Your task to perform on an android device: toggle data saver in the chrome app Image 0: 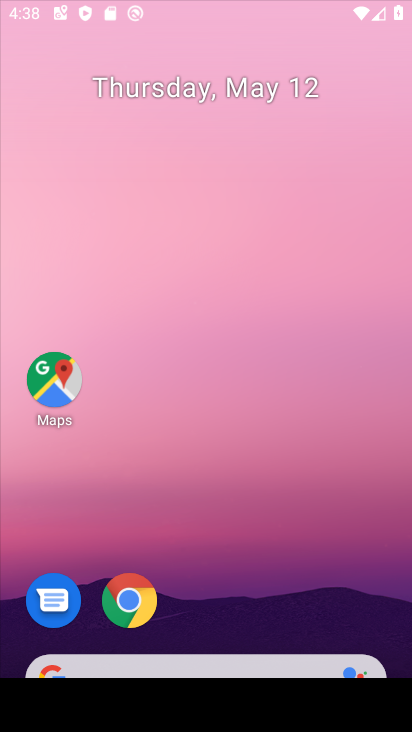
Step 0: drag from (207, 501) to (286, 179)
Your task to perform on an android device: toggle data saver in the chrome app Image 1: 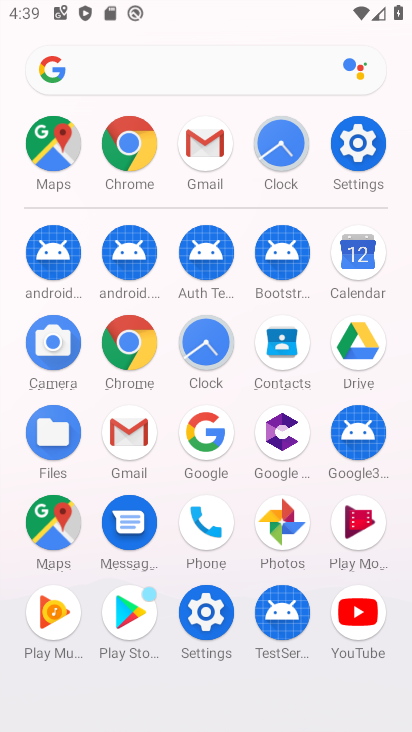
Step 1: click (124, 346)
Your task to perform on an android device: toggle data saver in the chrome app Image 2: 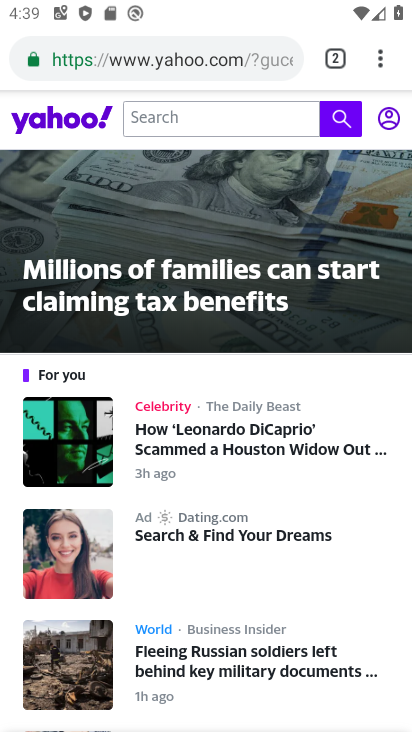
Step 2: click (379, 48)
Your task to perform on an android device: toggle data saver in the chrome app Image 3: 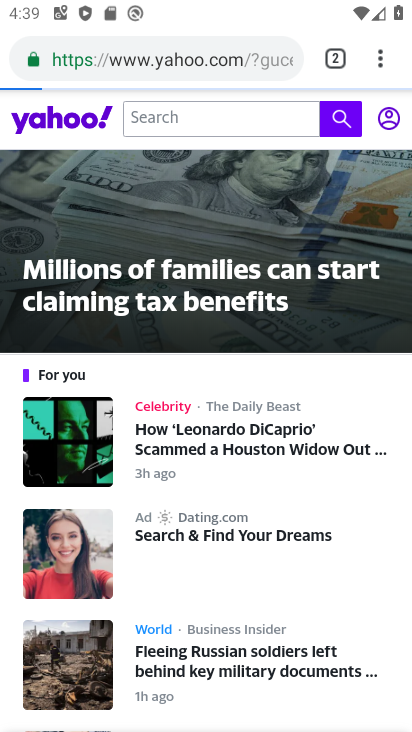
Step 3: drag from (375, 51) to (226, 622)
Your task to perform on an android device: toggle data saver in the chrome app Image 4: 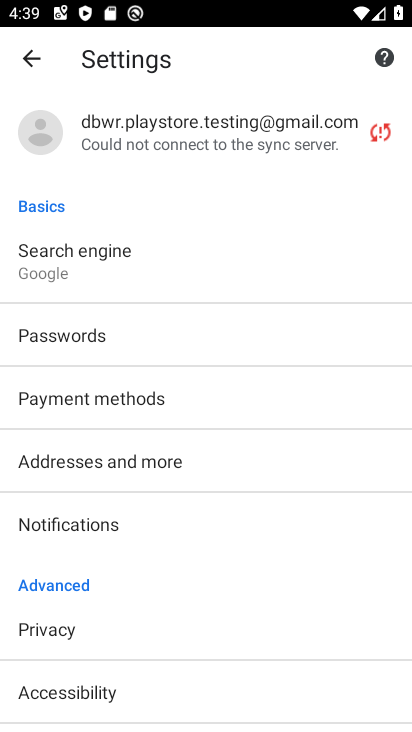
Step 4: drag from (218, 637) to (286, 133)
Your task to perform on an android device: toggle data saver in the chrome app Image 5: 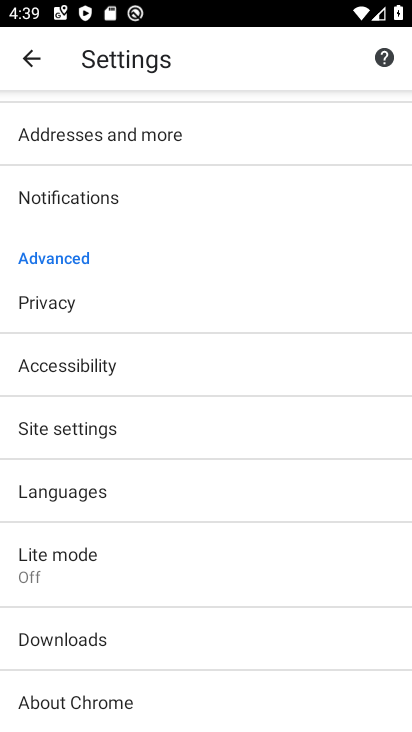
Step 5: drag from (150, 654) to (253, 179)
Your task to perform on an android device: toggle data saver in the chrome app Image 6: 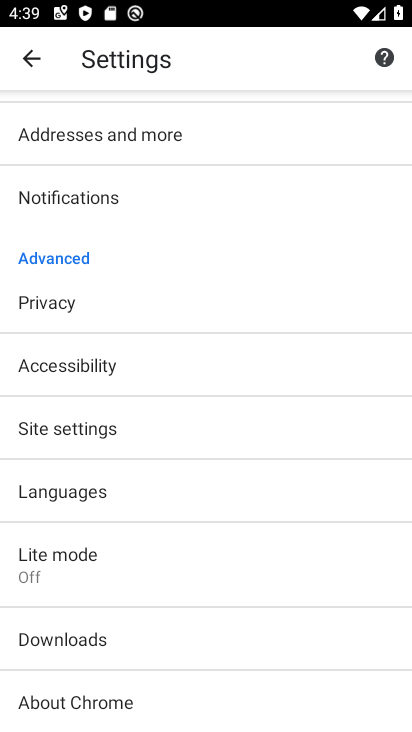
Step 6: click (115, 558)
Your task to perform on an android device: toggle data saver in the chrome app Image 7: 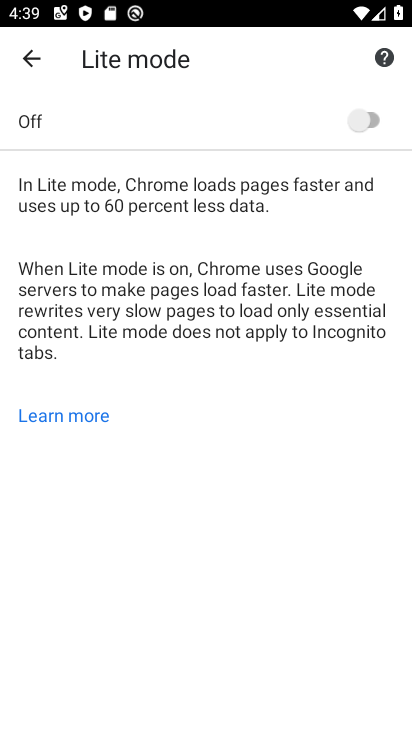
Step 7: click (334, 134)
Your task to perform on an android device: toggle data saver in the chrome app Image 8: 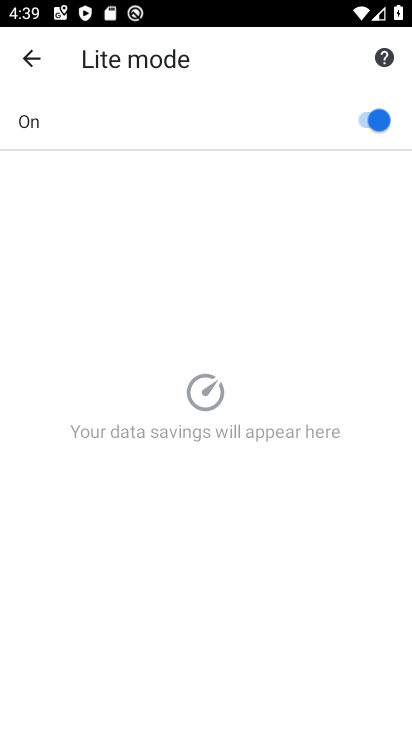
Step 8: task complete